Your task to perform on an android device: turn off javascript in the chrome app Image 0: 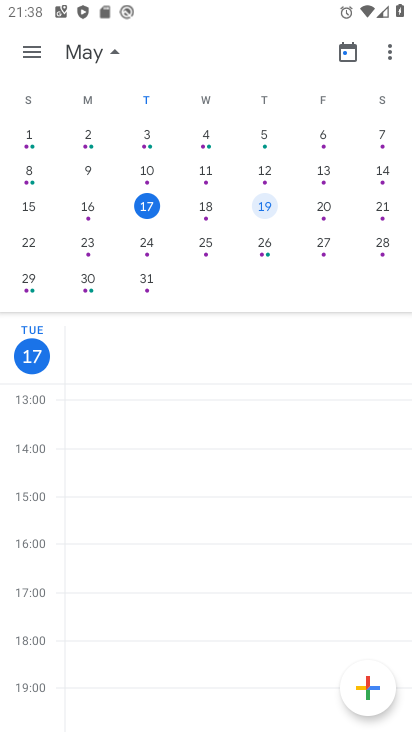
Step 0: press home button
Your task to perform on an android device: turn off javascript in the chrome app Image 1: 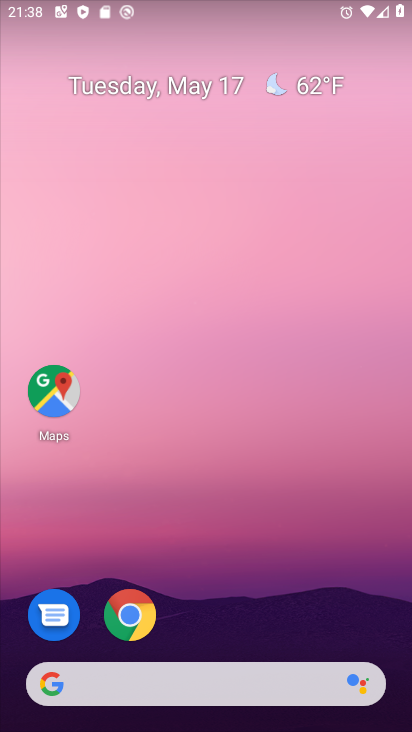
Step 1: click (116, 625)
Your task to perform on an android device: turn off javascript in the chrome app Image 2: 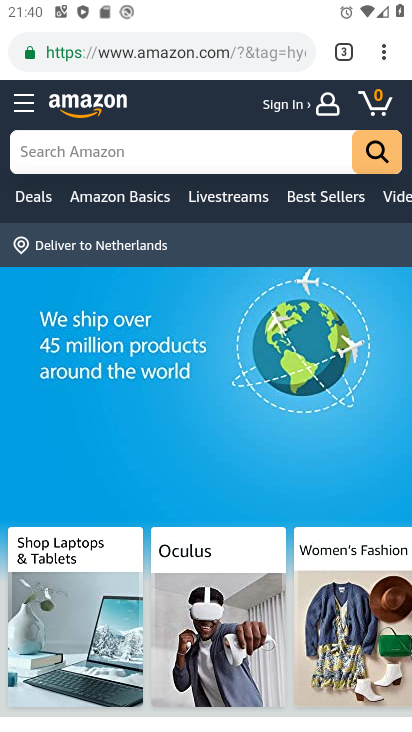
Step 2: drag from (384, 50) to (210, 639)
Your task to perform on an android device: turn off javascript in the chrome app Image 3: 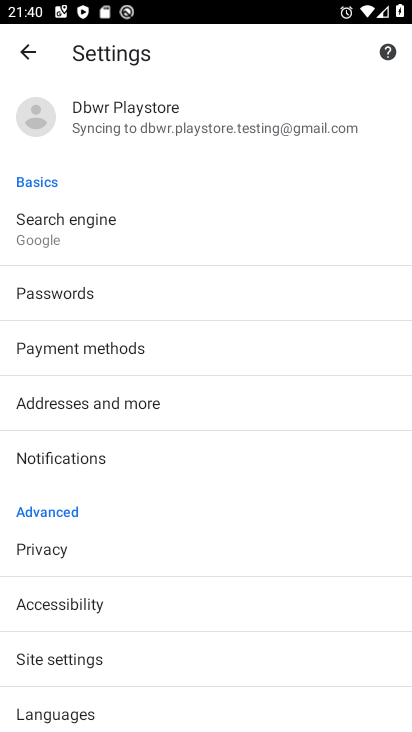
Step 3: click (111, 663)
Your task to perform on an android device: turn off javascript in the chrome app Image 4: 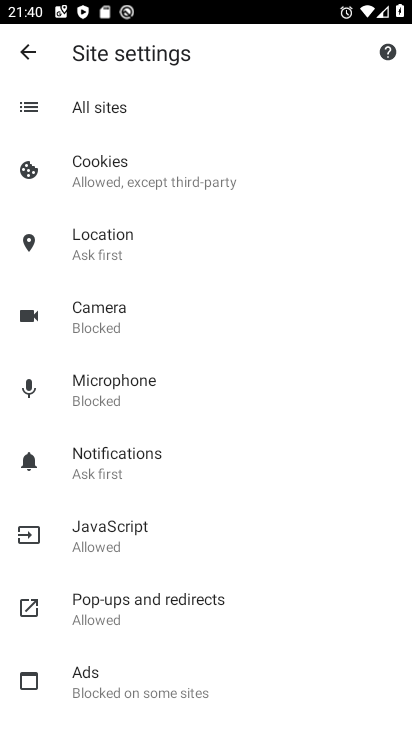
Step 4: click (101, 520)
Your task to perform on an android device: turn off javascript in the chrome app Image 5: 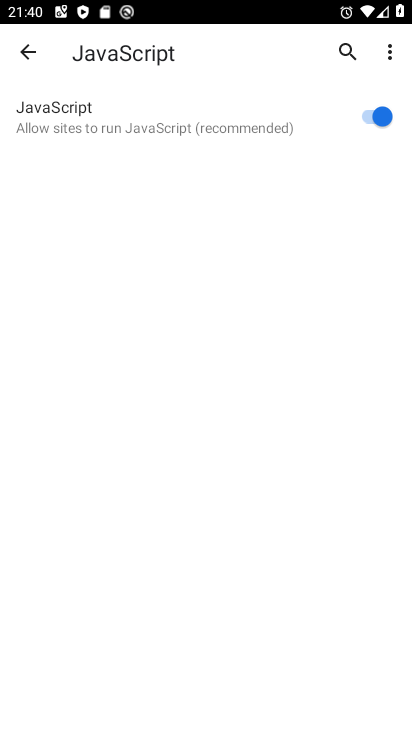
Step 5: click (362, 120)
Your task to perform on an android device: turn off javascript in the chrome app Image 6: 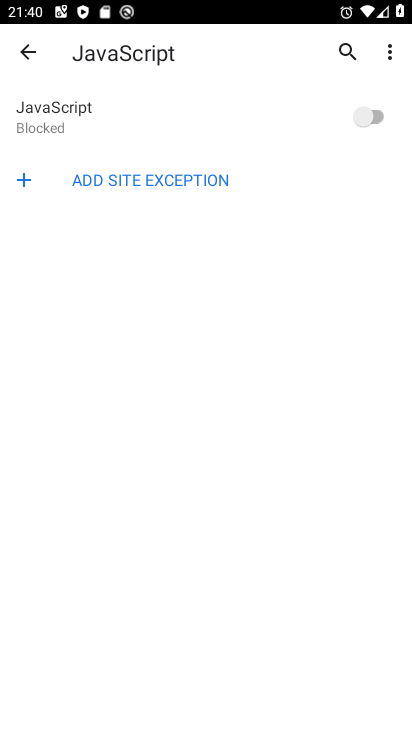
Step 6: task complete